Your task to perform on an android device: turn off location Image 0: 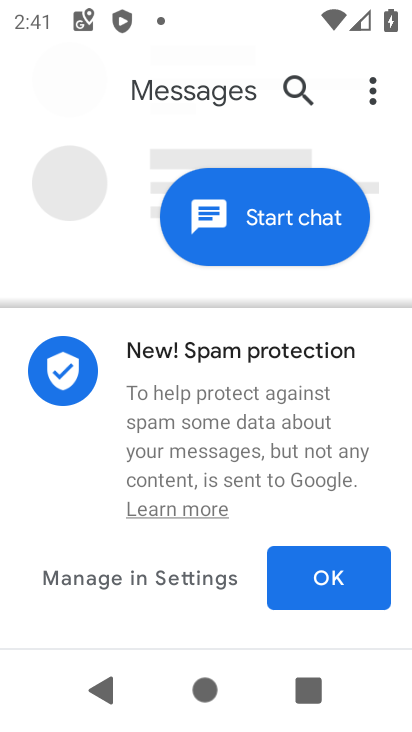
Step 0: press home button
Your task to perform on an android device: turn off location Image 1: 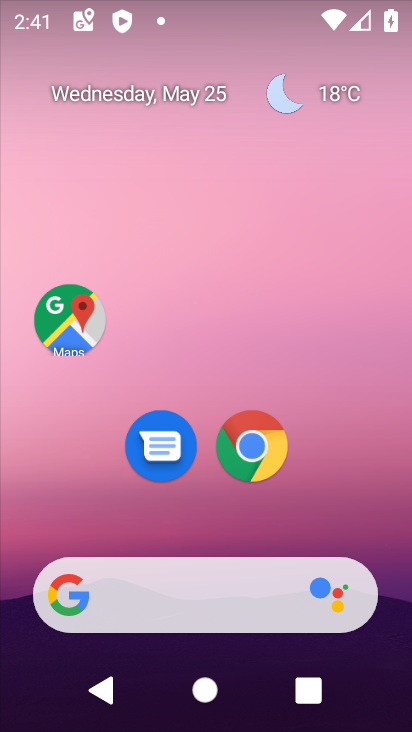
Step 1: drag from (214, 578) to (229, 108)
Your task to perform on an android device: turn off location Image 2: 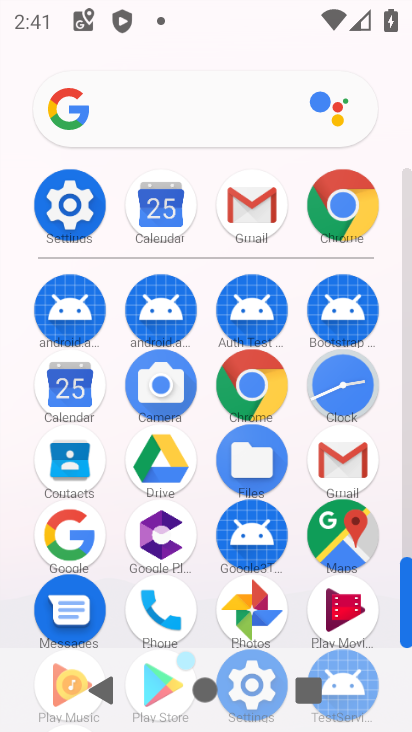
Step 2: click (81, 191)
Your task to perform on an android device: turn off location Image 3: 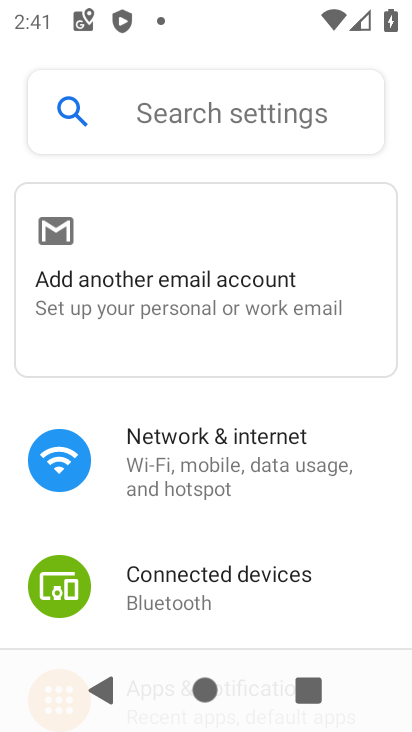
Step 3: drag from (248, 546) to (246, 115)
Your task to perform on an android device: turn off location Image 4: 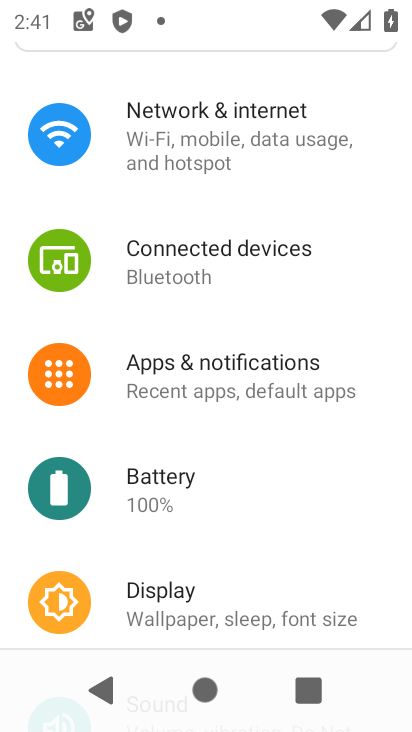
Step 4: drag from (191, 582) to (195, 277)
Your task to perform on an android device: turn off location Image 5: 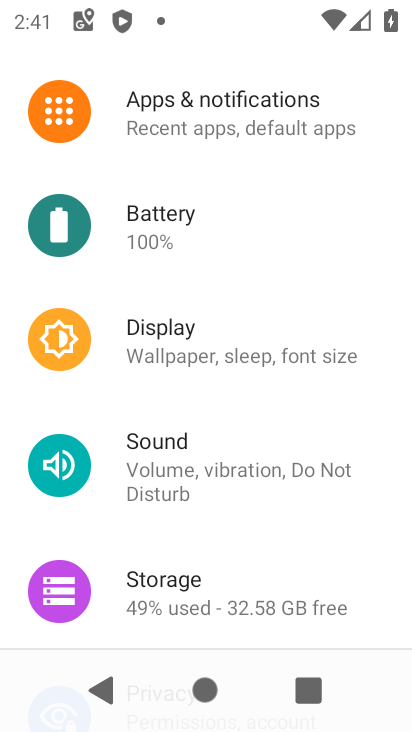
Step 5: drag from (202, 563) to (243, 117)
Your task to perform on an android device: turn off location Image 6: 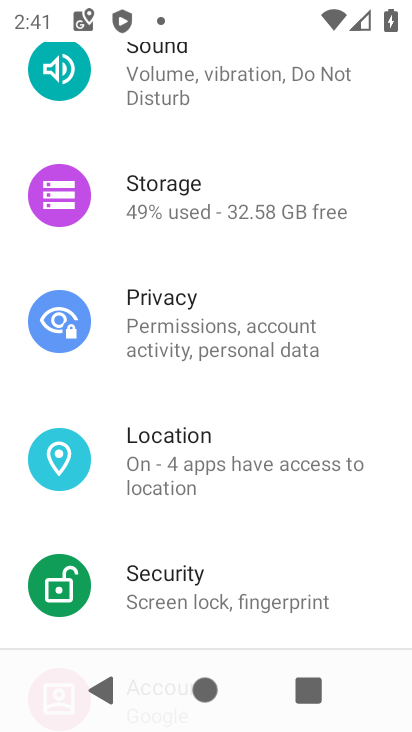
Step 6: click (196, 439)
Your task to perform on an android device: turn off location Image 7: 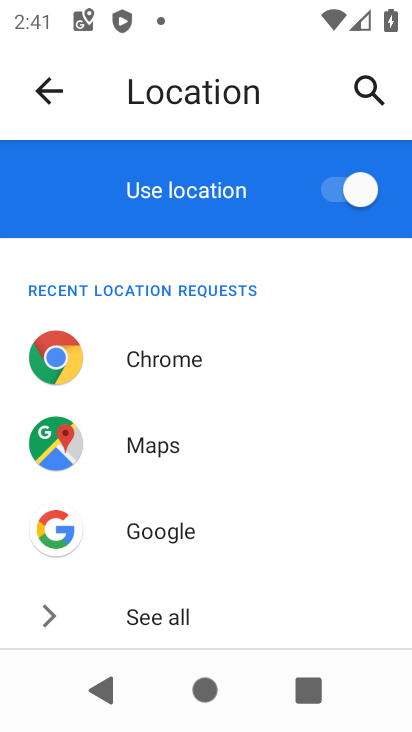
Step 7: click (341, 194)
Your task to perform on an android device: turn off location Image 8: 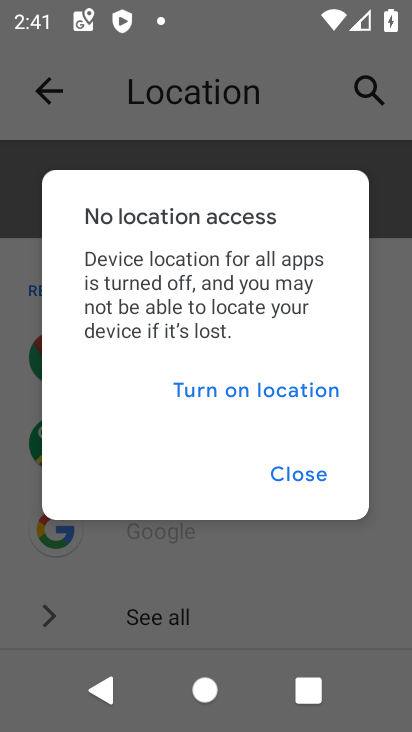
Step 8: click (285, 467)
Your task to perform on an android device: turn off location Image 9: 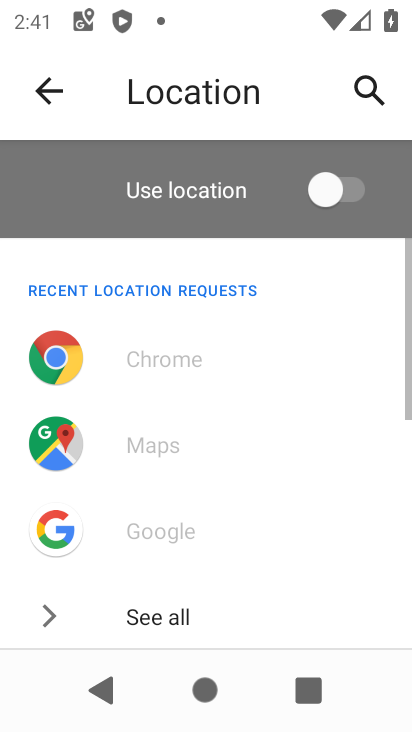
Step 9: task complete